Your task to perform on an android device: Search for pizza restaurants on Maps Image 0: 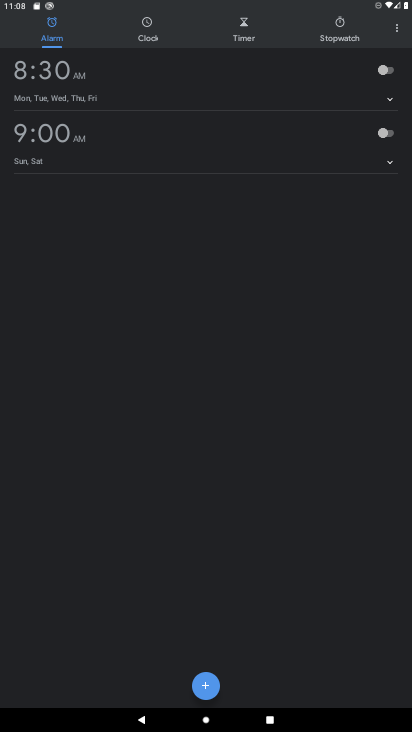
Step 0: press home button
Your task to perform on an android device: Search for pizza restaurants on Maps Image 1: 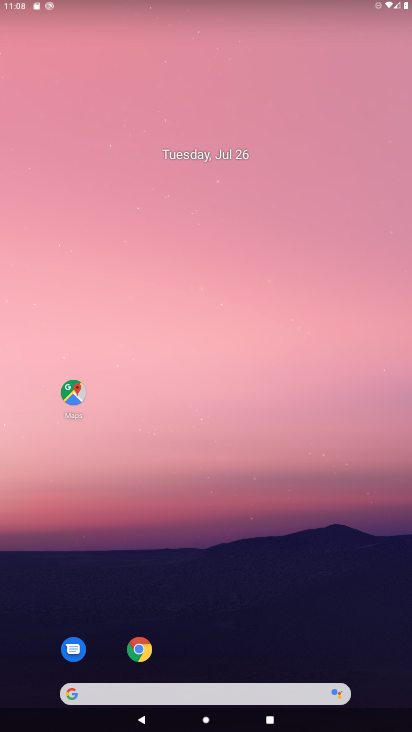
Step 1: drag from (224, 624) to (224, 220)
Your task to perform on an android device: Search for pizza restaurants on Maps Image 2: 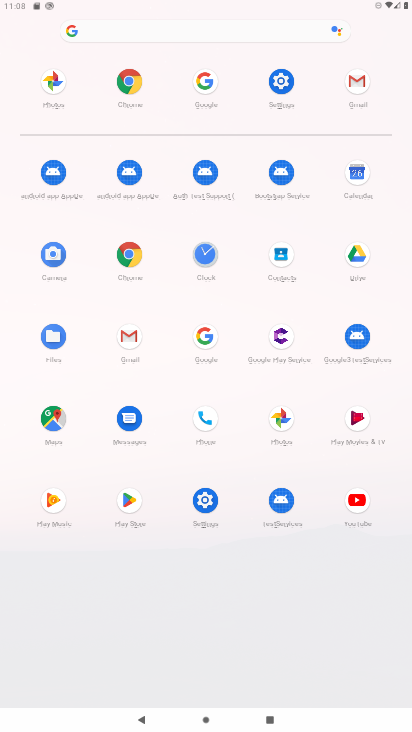
Step 2: click (57, 414)
Your task to perform on an android device: Search for pizza restaurants on Maps Image 3: 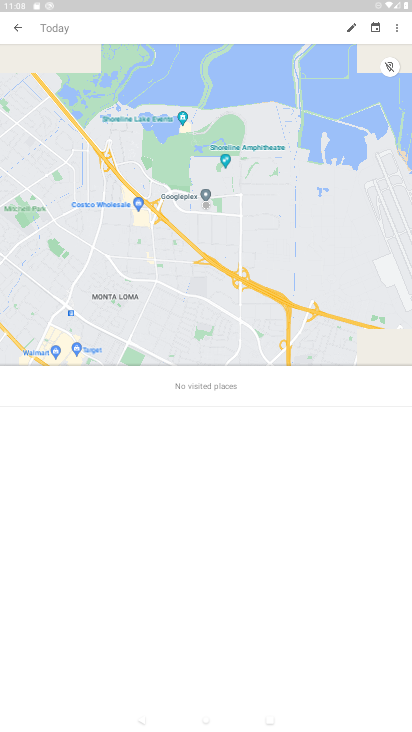
Step 3: click (22, 23)
Your task to perform on an android device: Search for pizza restaurants on Maps Image 4: 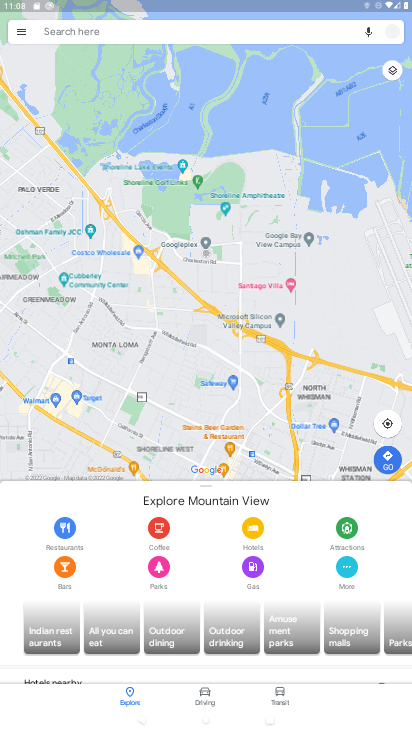
Step 4: click (110, 32)
Your task to perform on an android device: Search for pizza restaurants on Maps Image 5: 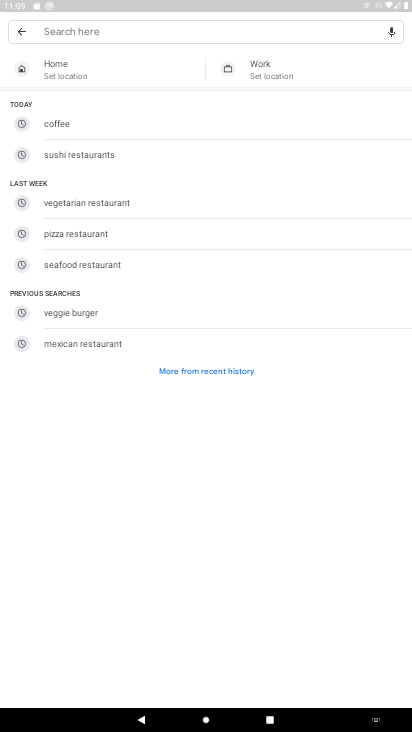
Step 5: click (84, 234)
Your task to perform on an android device: Search for pizza restaurants on Maps Image 6: 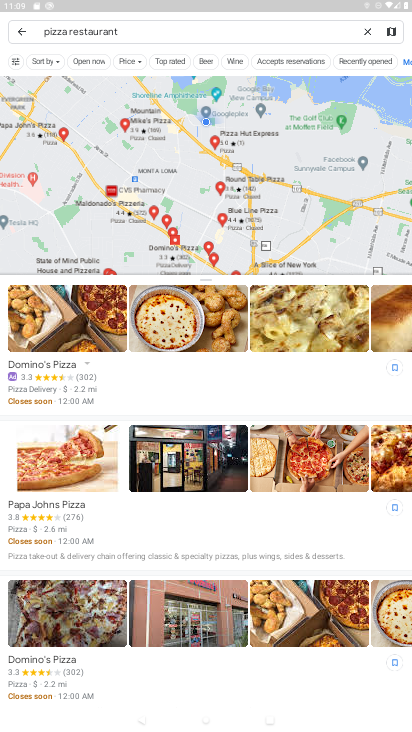
Step 6: task complete